Your task to perform on an android device: uninstall "ZOOM Cloud Meetings" Image 0: 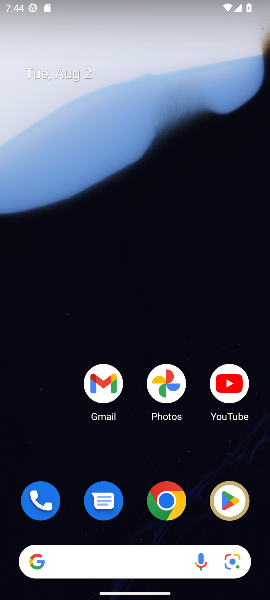
Step 0: drag from (127, 456) to (111, 38)
Your task to perform on an android device: uninstall "ZOOM Cloud Meetings" Image 1: 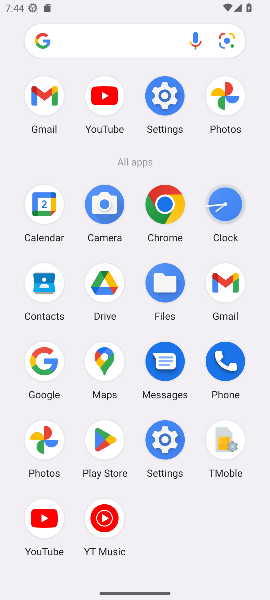
Step 1: click (105, 437)
Your task to perform on an android device: uninstall "ZOOM Cloud Meetings" Image 2: 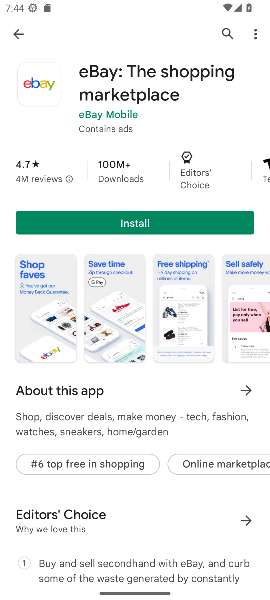
Step 2: click (222, 30)
Your task to perform on an android device: uninstall "ZOOM Cloud Meetings" Image 3: 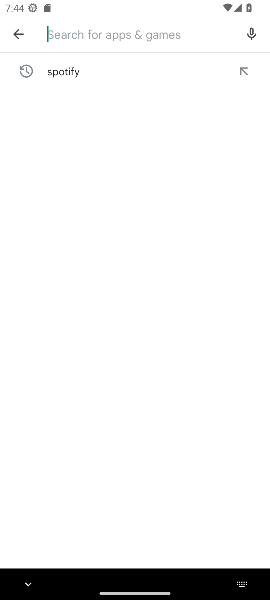
Step 3: click (83, 28)
Your task to perform on an android device: uninstall "ZOOM Cloud Meetings" Image 4: 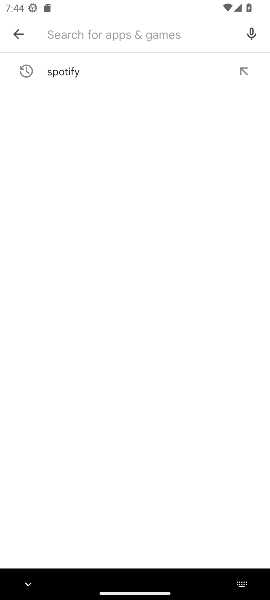
Step 4: type "ZOOM Cloud Meetings"
Your task to perform on an android device: uninstall "ZOOM Cloud Meetings" Image 5: 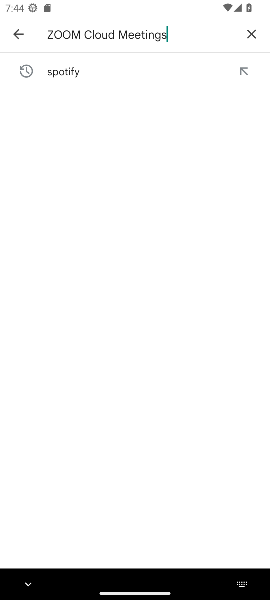
Step 5: type ""
Your task to perform on an android device: uninstall "ZOOM Cloud Meetings" Image 6: 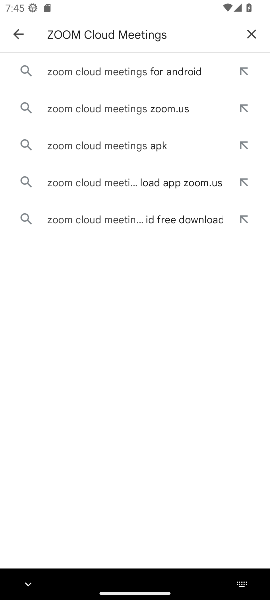
Step 6: click (97, 64)
Your task to perform on an android device: uninstall "ZOOM Cloud Meetings" Image 7: 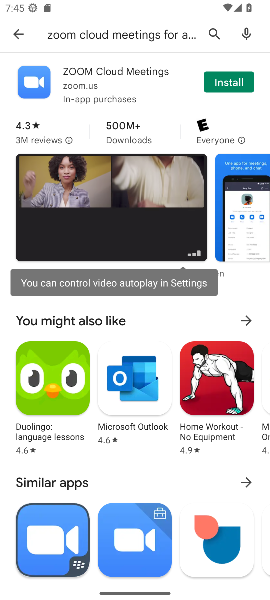
Step 7: click (72, 75)
Your task to perform on an android device: uninstall "ZOOM Cloud Meetings" Image 8: 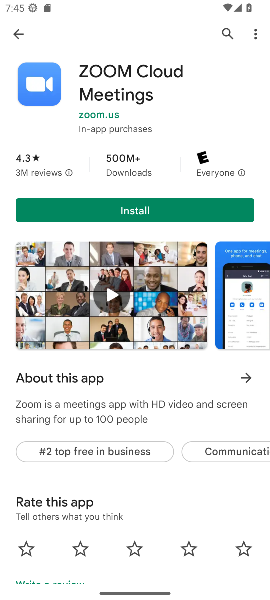
Step 8: task complete